Your task to perform on an android device: Show me productivity apps on the Play Store Image 0: 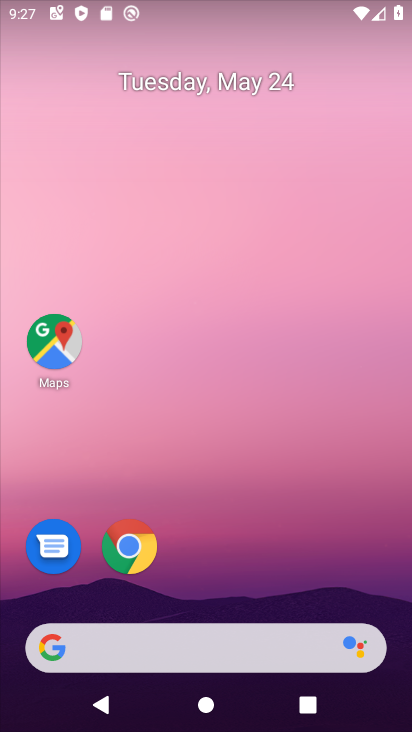
Step 0: drag from (232, 617) to (230, 217)
Your task to perform on an android device: Show me productivity apps on the Play Store Image 1: 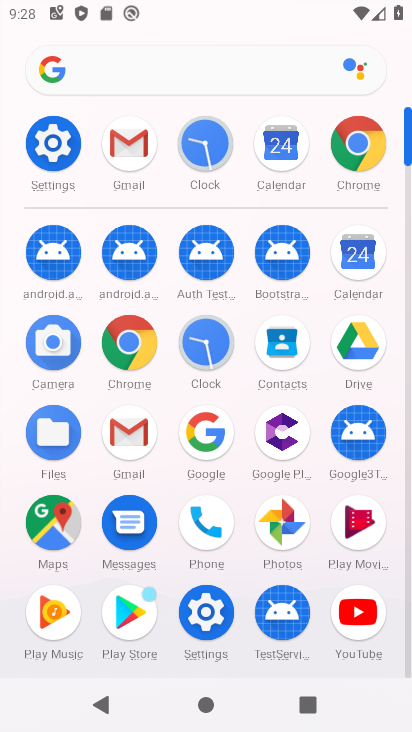
Step 1: click (134, 622)
Your task to perform on an android device: Show me productivity apps on the Play Store Image 2: 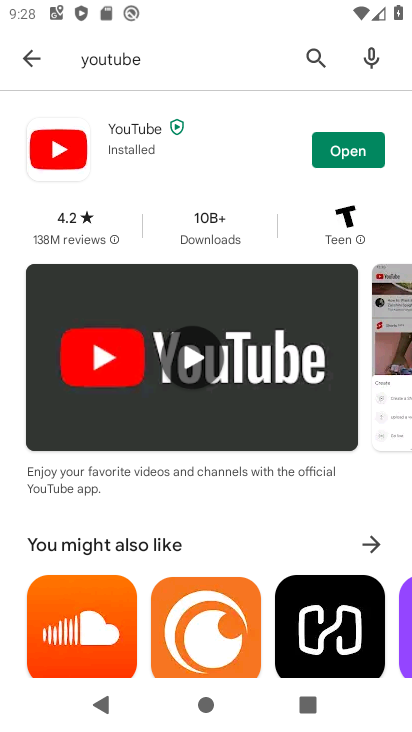
Step 2: click (29, 51)
Your task to perform on an android device: Show me productivity apps on the Play Store Image 3: 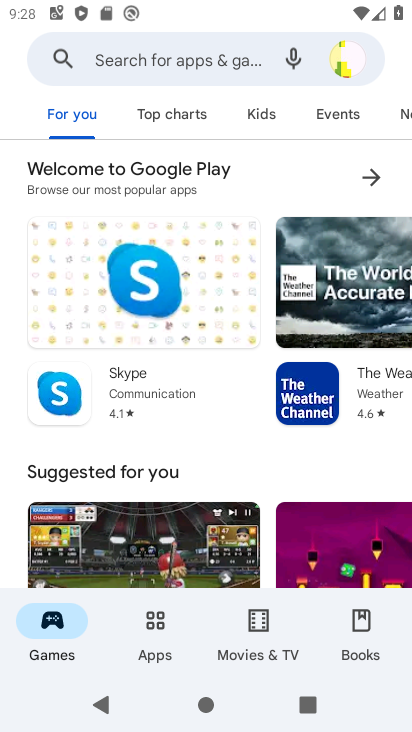
Step 3: click (152, 619)
Your task to perform on an android device: Show me productivity apps on the Play Store Image 4: 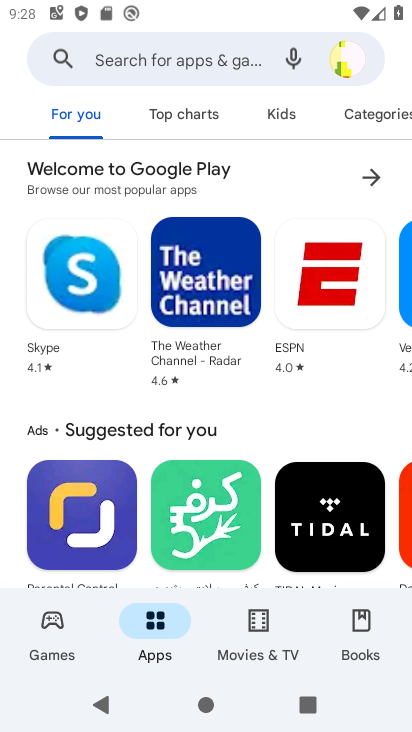
Step 4: task complete